Your task to perform on an android device: turn off airplane mode Image 0: 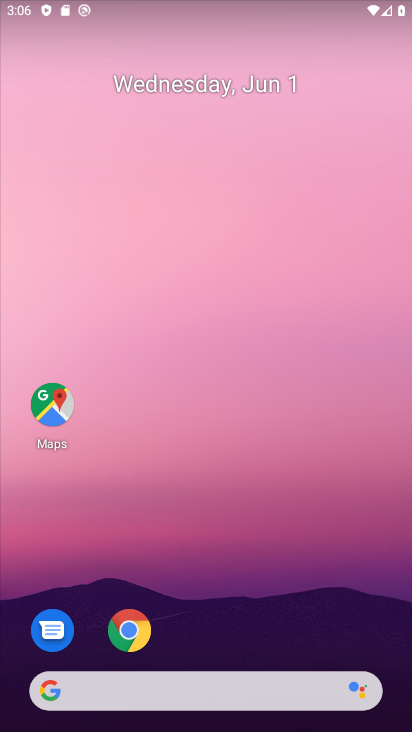
Step 0: drag from (210, 6) to (250, 416)
Your task to perform on an android device: turn off airplane mode Image 1: 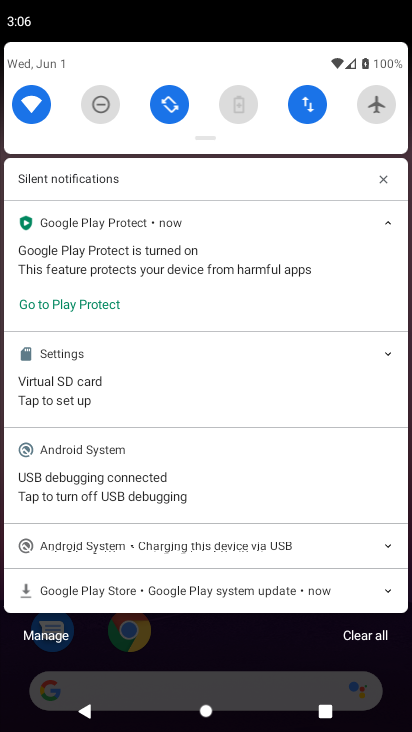
Step 1: click (371, 109)
Your task to perform on an android device: turn off airplane mode Image 2: 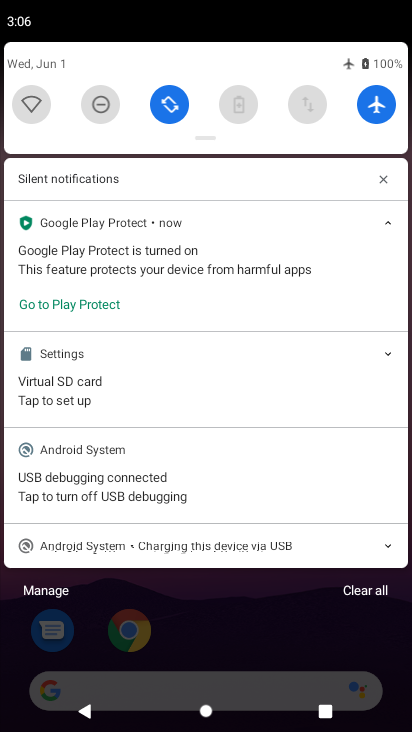
Step 2: task complete